Your task to perform on an android device: Go to Yahoo.com Image 0: 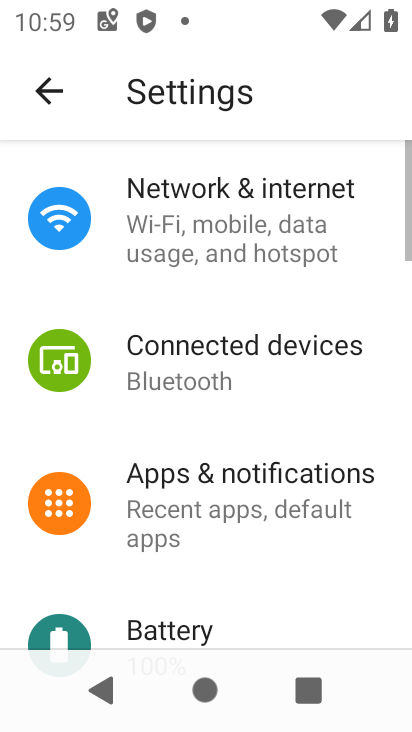
Step 0: press home button
Your task to perform on an android device: Go to Yahoo.com Image 1: 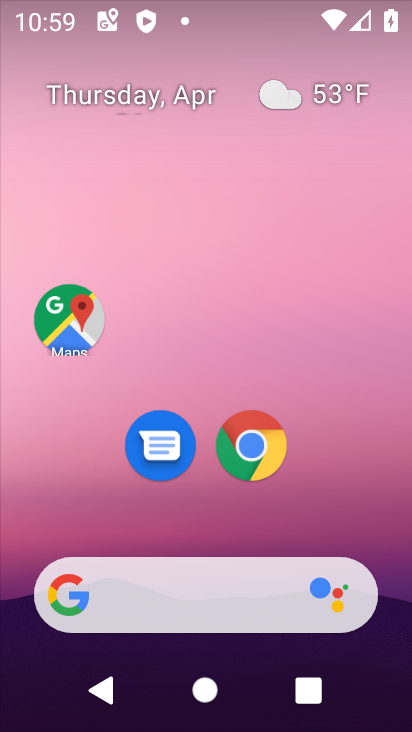
Step 1: drag from (211, 574) to (361, 112)
Your task to perform on an android device: Go to Yahoo.com Image 2: 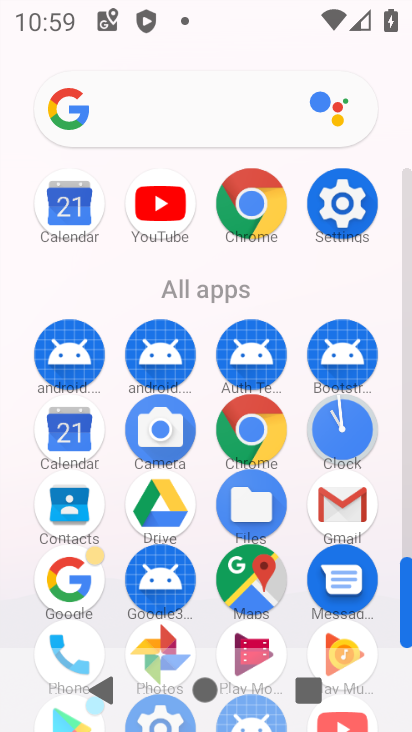
Step 2: click (259, 206)
Your task to perform on an android device: Go to Yahoo.com Image 3: 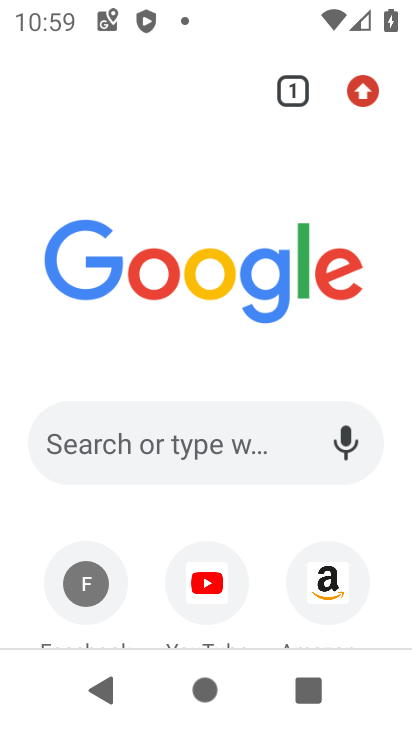
Step 3: drag from (181, 547) to (353, 84)
Your task to perform on an android device: Go to Yahoo.com Image 4: 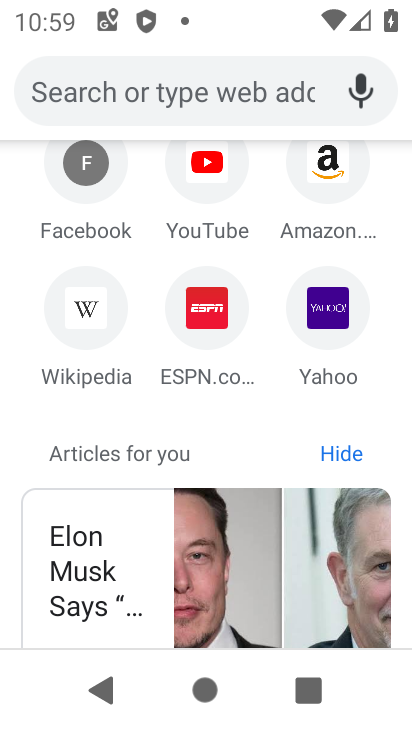
Step 4: click (336, 314)
Your task to perform on an android device: Go to Yahoo.com Image 5: 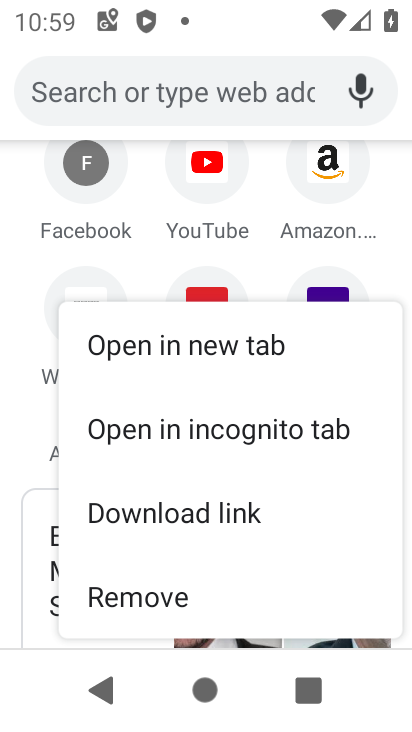
Step 5: drag from (255, 286) to (360, 123)
Your task to perform on an android device: Go to Yahoo.com Image 6: 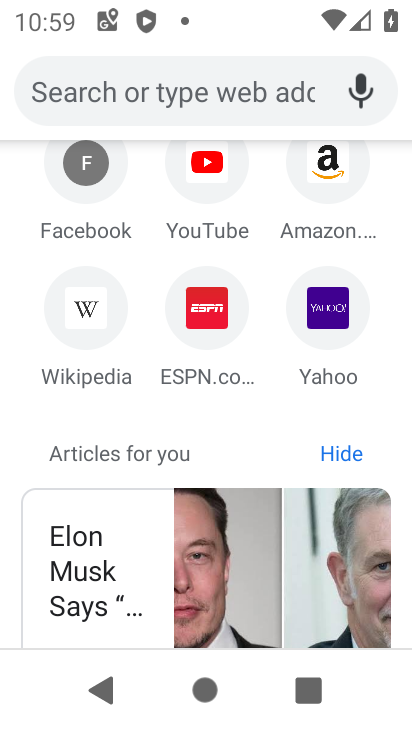
Step 6: click (334, 325)
Your task to perform on an android device: Go to Yahoo.com Image 7: 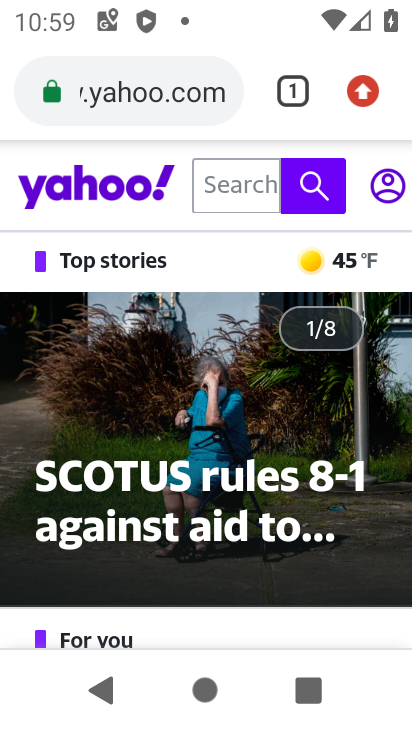
Step 7: task complete